Your task to perform on an android device: add a contact in the contacts app Image 0: 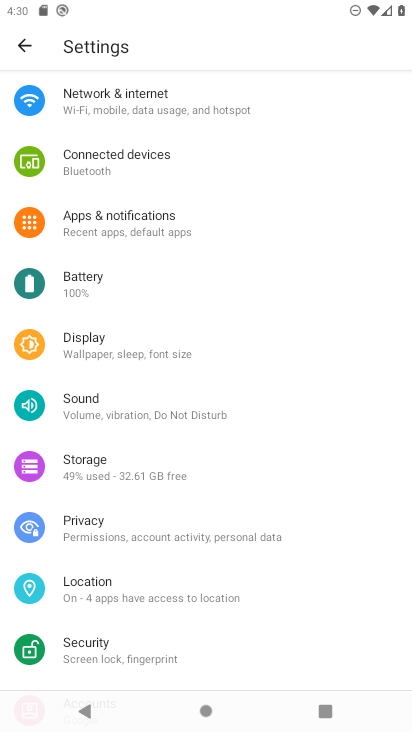
Step 0: press home button
Your task to perform on an android device: add a contact in the contacts app Image 1: 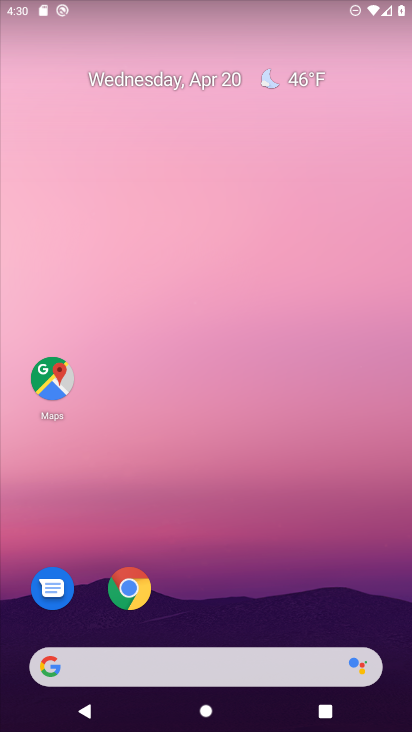
Step 1: drag from (215, 693) to (194, 135)
Your task to perform on an android device: add a contact in the contacts app Image 2: 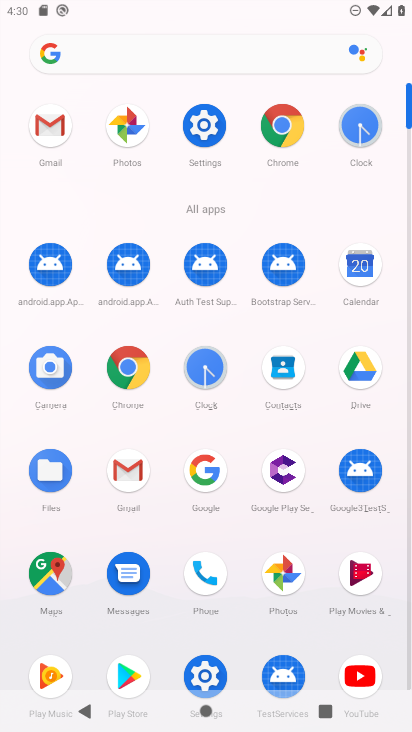
Step 2: click (281, 371)
Your task to perform on an android device: add a contact in the contacts app Image 3: 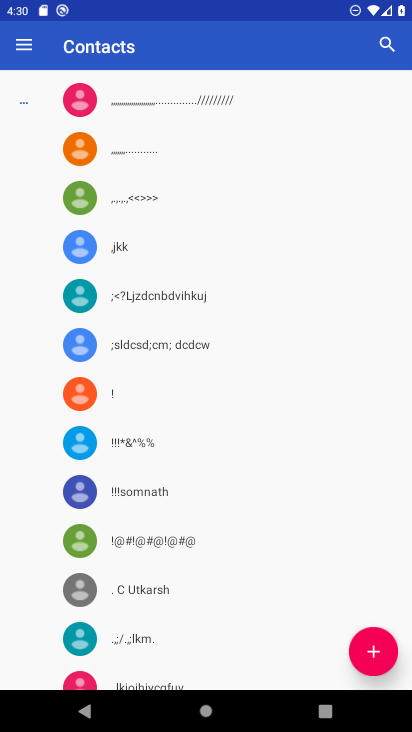
Step 3: click (376, 646)
Your task to perform on an android device: add a contact in the contacts app Image 4: 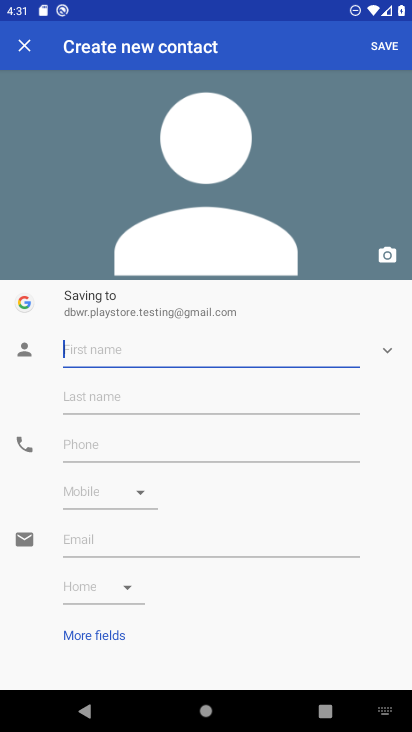
Step 4: type "nnaaz"
Your task to perform on an android device: add a contact in the contacts app Image 5: 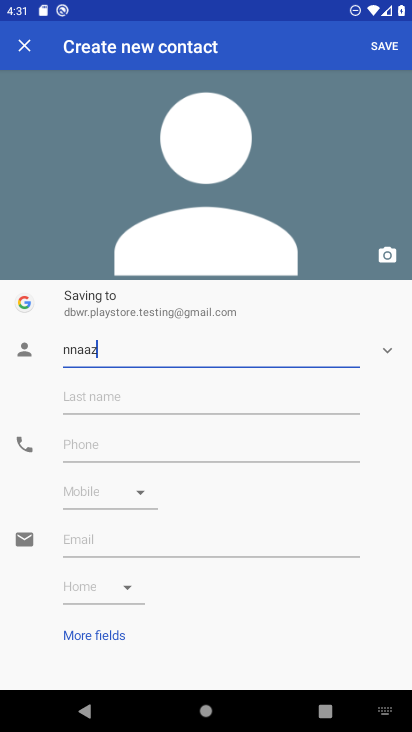
Step 5: type ""
Your task to perform on an android device: add a contact in the contacts app Image 6: 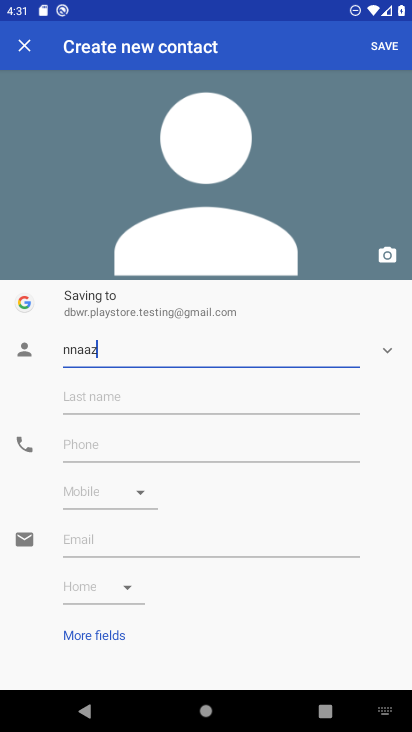
Step 6: click (159, 441)
Your task to perform on an android device: add a contact in the contacts app Image 7: 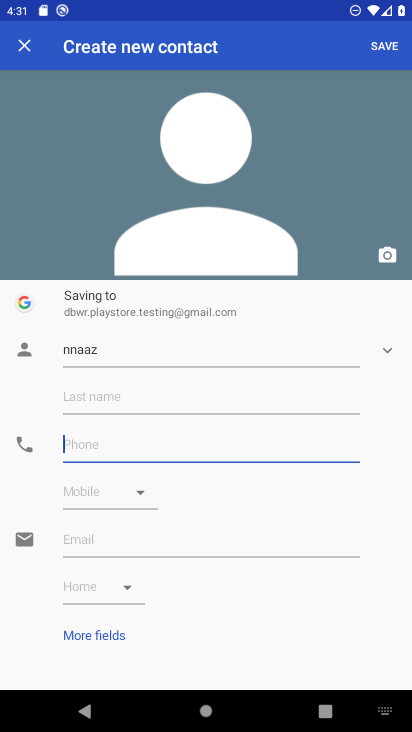
Step 7: type "898765"
Your task to perform on an android device: add a contact in the contacts app Image 8: 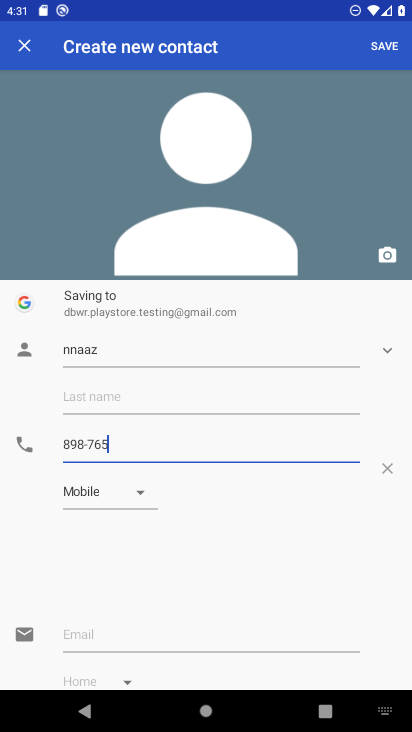
Step 8: type ""
Your task to perform on an android device: add a contact in the contacts app Image 9: 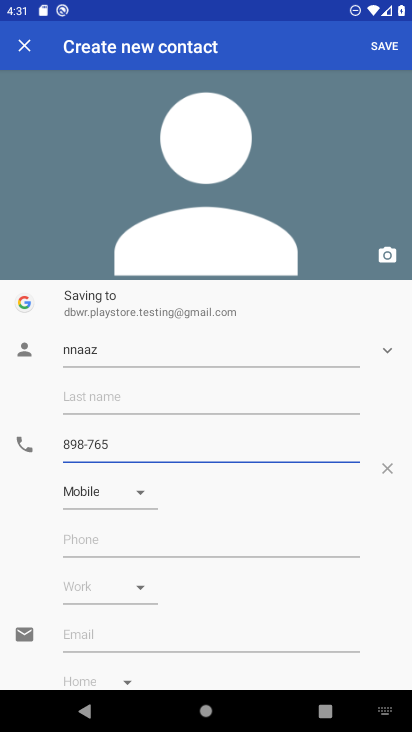
Step 9: click (382, 39)
Your task to perform on an android device: add a contact in the contacts app Image 10: 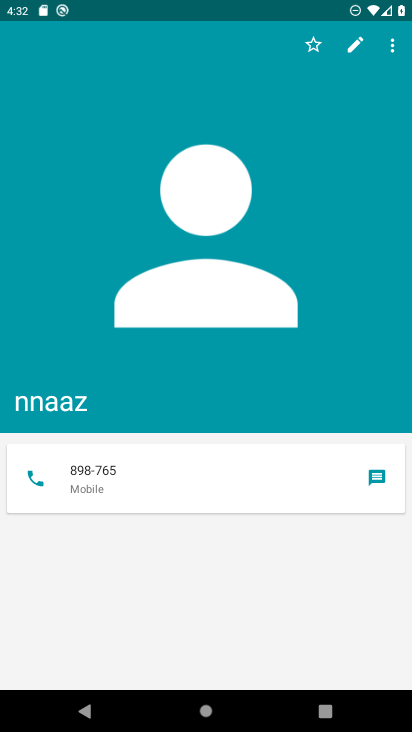
Step 10: task complete